Your task to perform on an android device: check the backup settings in the google photos Image 0: 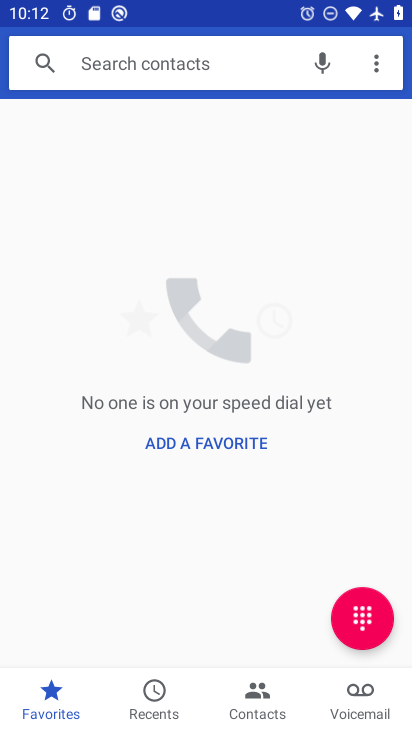
Step 0: press home button
Your task to perform on an android device: check the backup settings in the google photos Image 1: 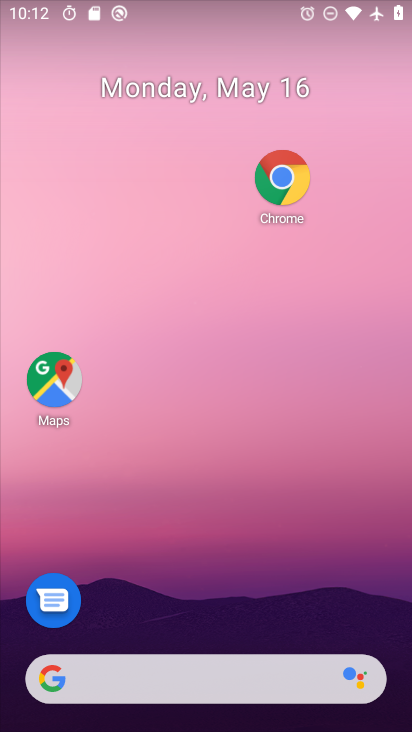
Step 1: drag from (250, 672) to (379, 121)
Your task to perform on an android device: check the backup settings in the google photos Image 2: 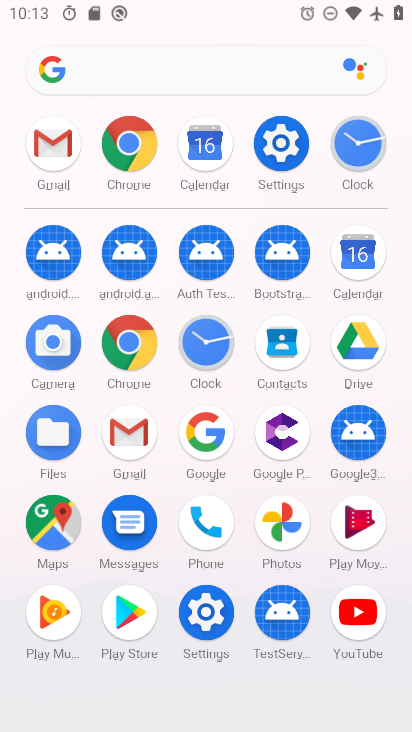
Step 2: click (287, 532)
Your task to perform on an android device: check the backup settings in the google photos Image 3: 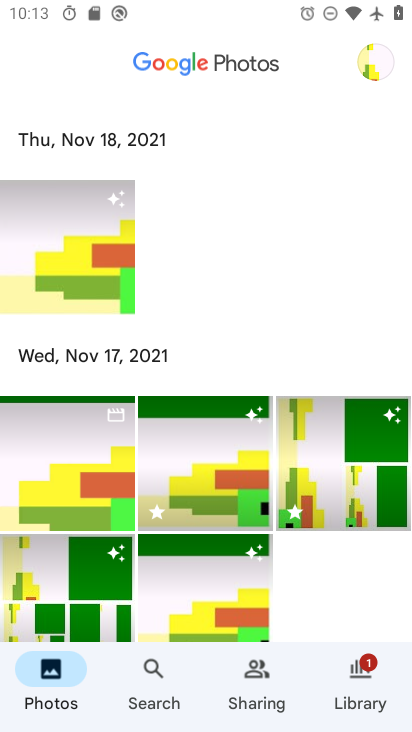
Step 3: click (383, 68)
Your task to perform on an android device: check the backup settings in the google photos Image 4: 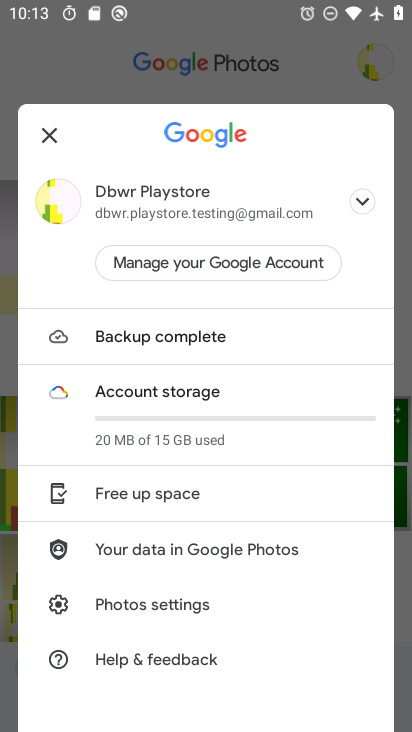
Step 4: click (209, 599)
Your task to perform on an android device: check the backup settings in the google photos Image 5: 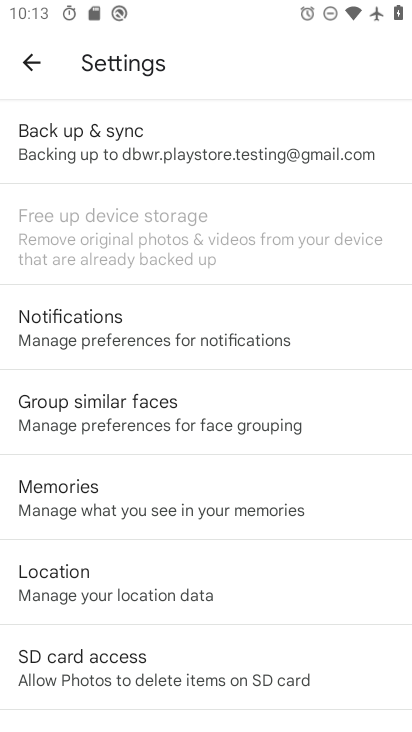
Step 5: click (216, 147)
Your task to perform on an android device: check the backup settings in the google photos Image 6: 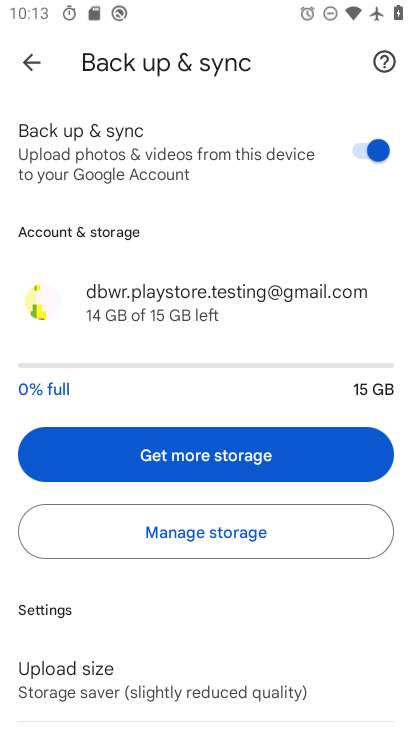
Step 6: task complete